Your task to perform on an android device: Open Yahoo.com Image 0: 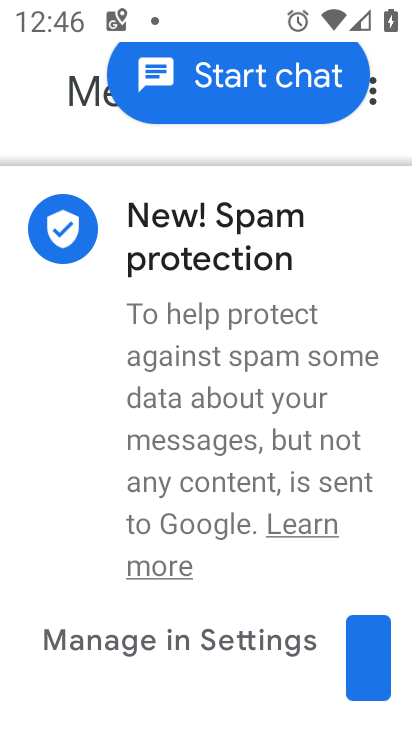
Step 0: press home button
Your task to perform on an android device: Open Yahoo.com Image 1: 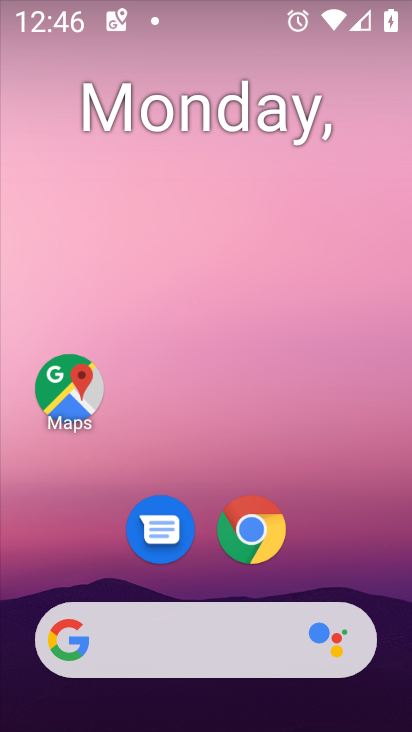
Step 1: click (254, 560)
Your task to perform on an android device: Open Yahoo.com Image 2: 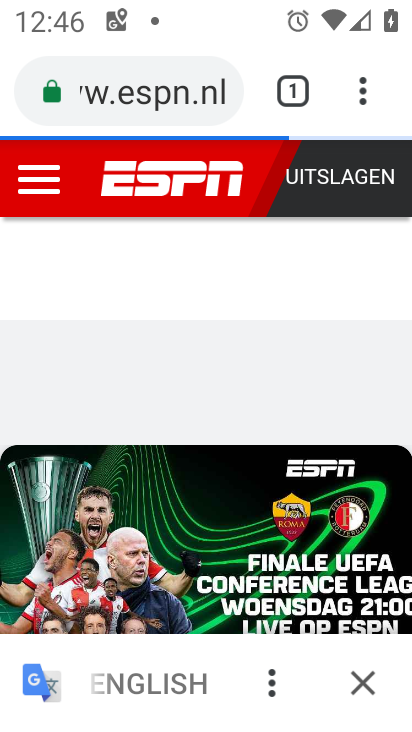
Step 2: click (176, 81)
Your task to perform on an android device: Open Yahoo.com Image 3: 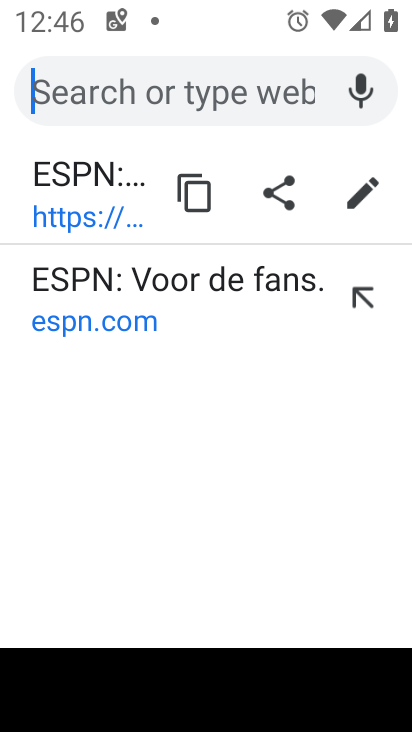
Step 3: type "yahoo.com"
Your task to perform on an android device: Open Yahoo.com Image 4: 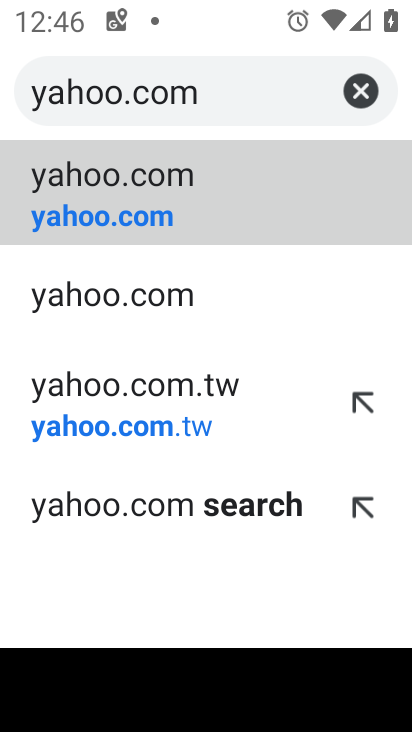
Step 4: click (209, 217)
Your task to perform on an android device: Open Yahoo.com Image 5: 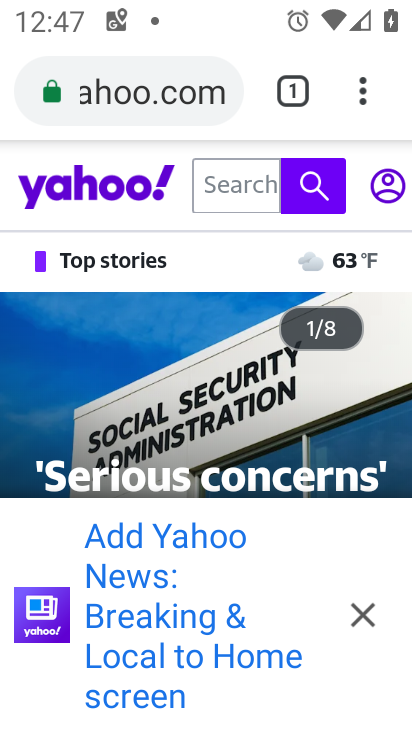
Step 5: task complete